Your task to perform on an android device: Open Maps and search for coffee Image 0: 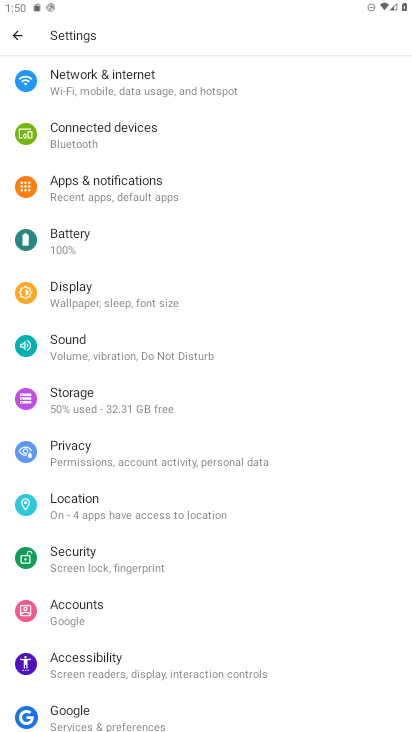
Step 0: press home button
Your task to perform on an android device: Open Maps and search for coffee Image 1: 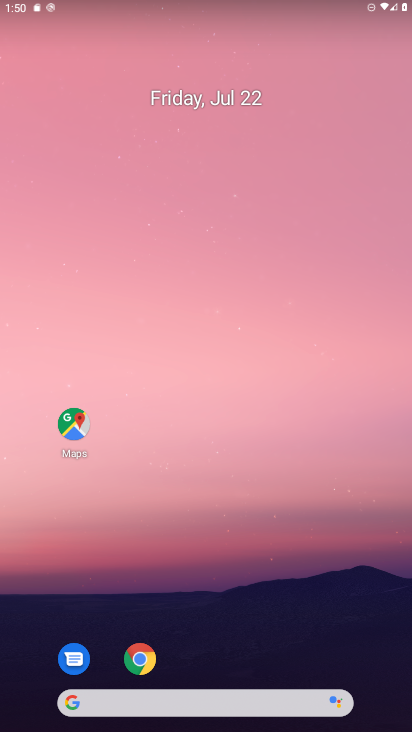
Step 1: click (71, 424)
Your task to perform on an android device: Open Maps and search for coffee Image 2: 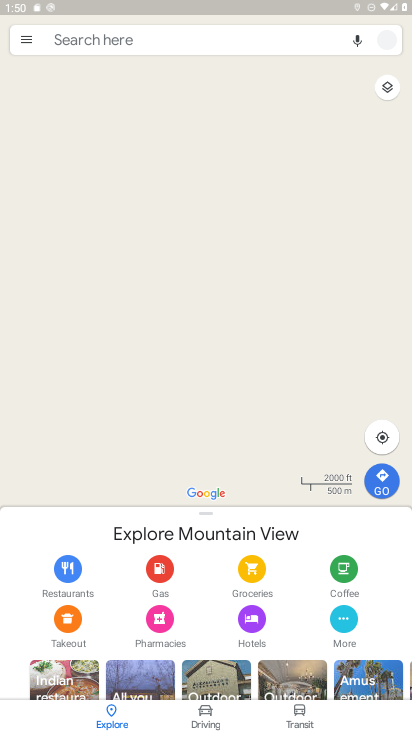
Step 2: click (176, 38)
Your task to perform on an android device: Open Maps and search for coffee Image 3: 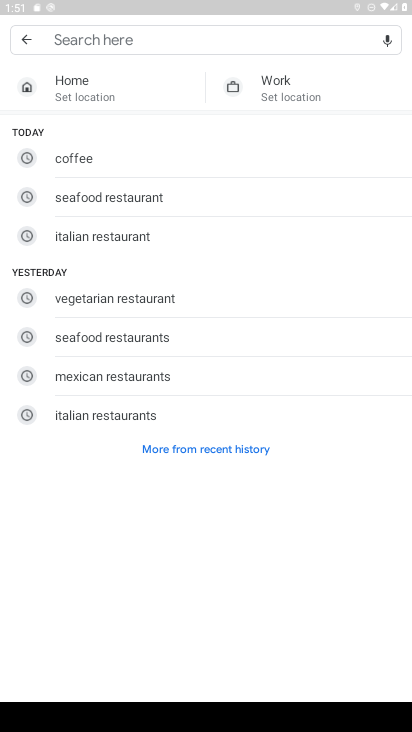
Step 3: type "coffee"
Your task to perform on an android device: Open Maps and search for coffee Image 4: 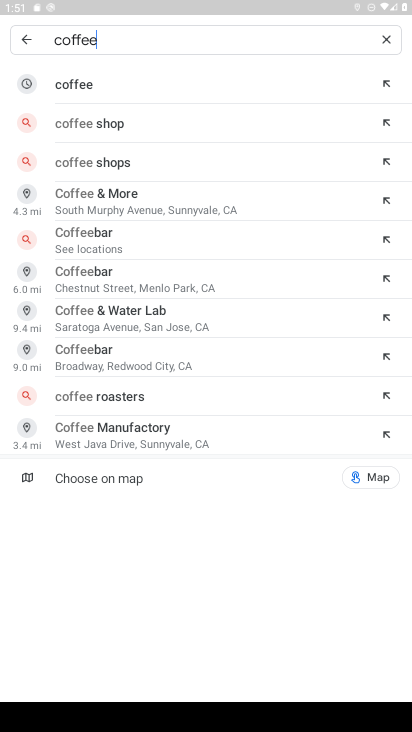
Step 4: click (79, 87)
Your task to perform on an android device: Open Maps and search for coffee Image 5: 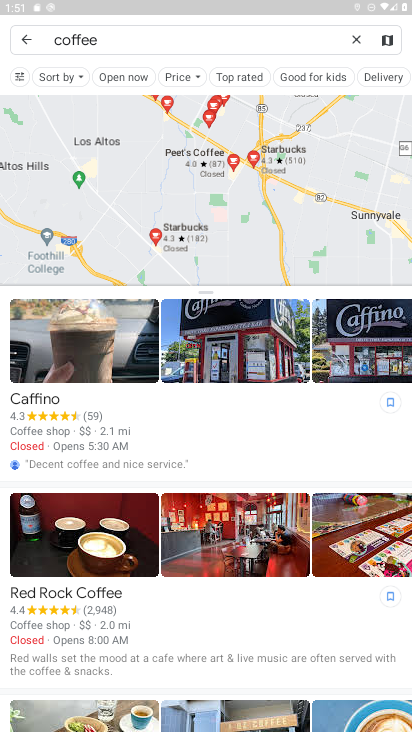
Step 5: task complete